Your task to perform on an android device: change text size in settings app Image 0: 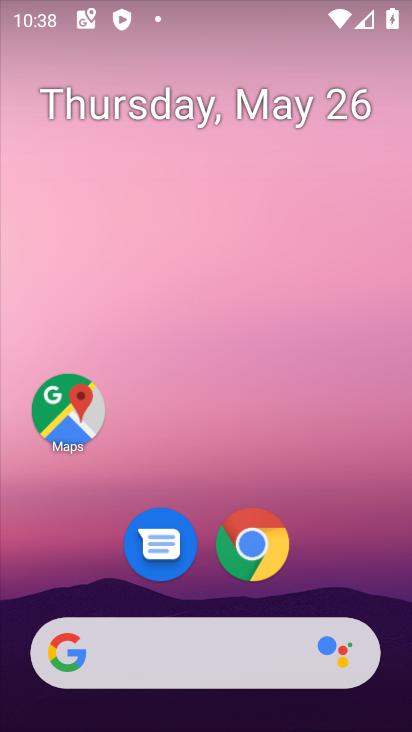
Step 0: drag from (338, 563) to (208, 53)
Your task to perform on an android device: change text size in settings app Image 1: 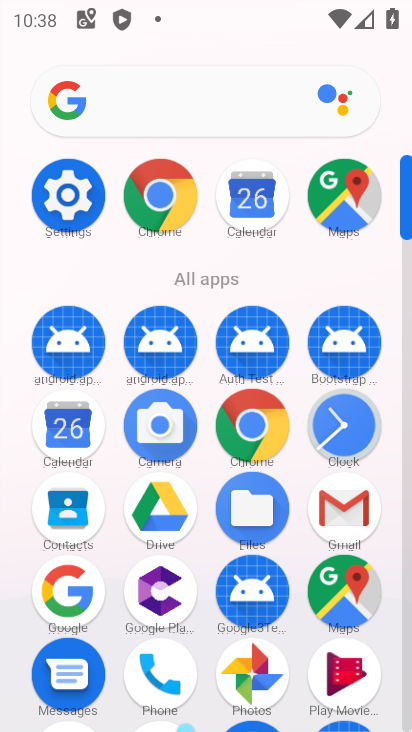
Step 1: click (67, 192)
Your task to perform on an android device: change text size in settings app Image 2: 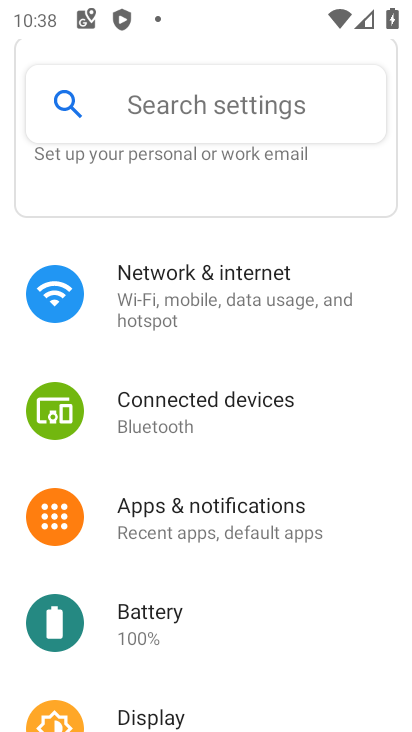
Step 2: drag from (328, 593) to (301, 284)
Your task to perform on an android device: change text size in settings app Image 3: 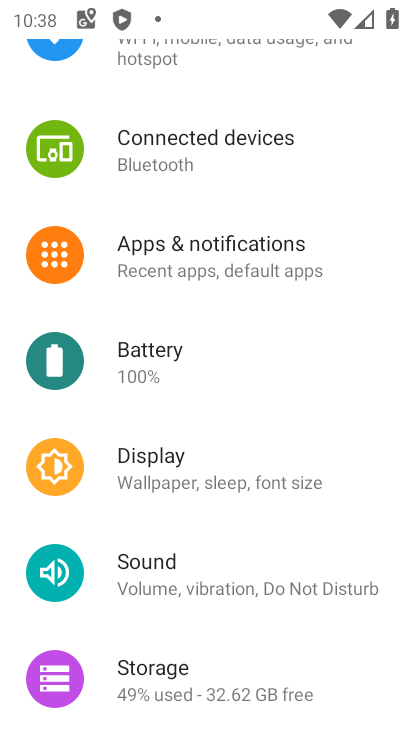
Step 3: click (213, 473)
Your task to perform on an android device: change text size in settings app Image 4: 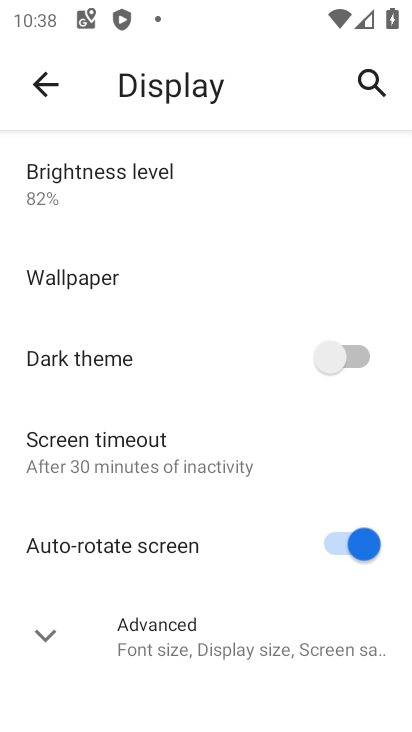
Step 4: click (36, 644)
Your task to perform on an android device: change text size in settings app Image 5: 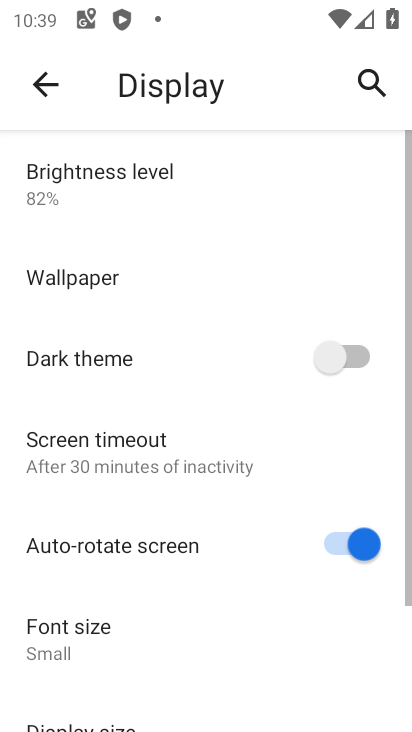
Step 5: drag from (220, 595) to (224, 202)
Your task to perform on an android device: change text size in settings app Image 6: 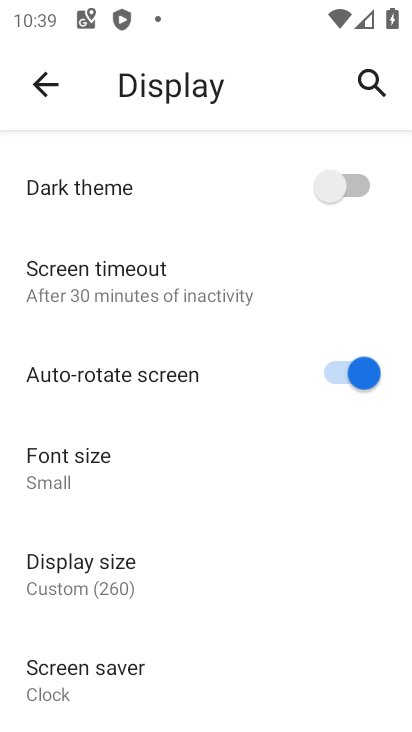
Step 6: click (102, 459)
Your task to perform on an android device: change text size in settings app Image 7: 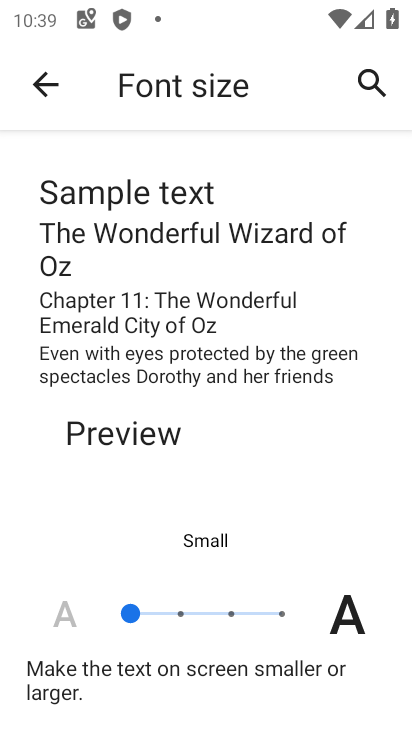
Step 7: click (268, 611)
Your task to perform on an android device: change text size in settings app Image 8: 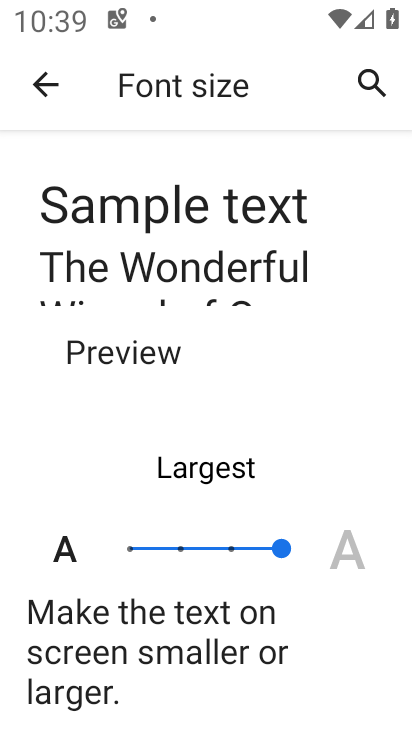
Step 8: task complete